Your task to perform on an android device: Show the shopping cart on walmart.com. Image 0: 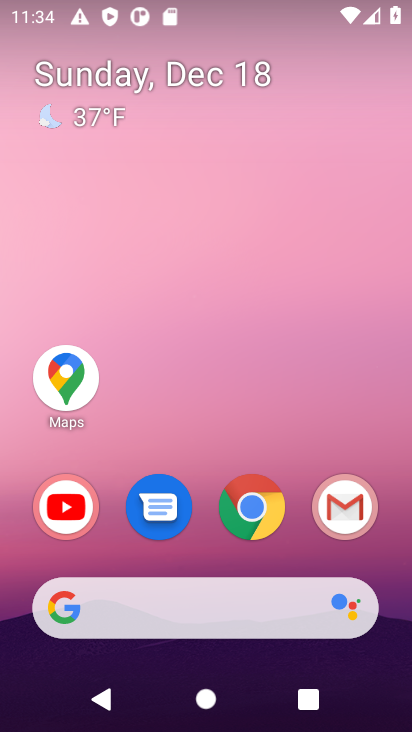
Step 0: click (251, 511)
Your task to perform on an android device: Show the shopping cart on walmart.com. Image 1: 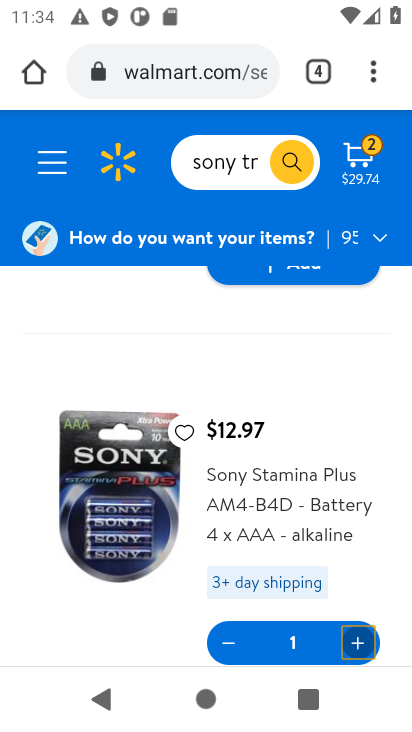
Step 1: click (358, 154)
Your task to perform on an android device: Show the shopping cart on walmart.com. Image 2: 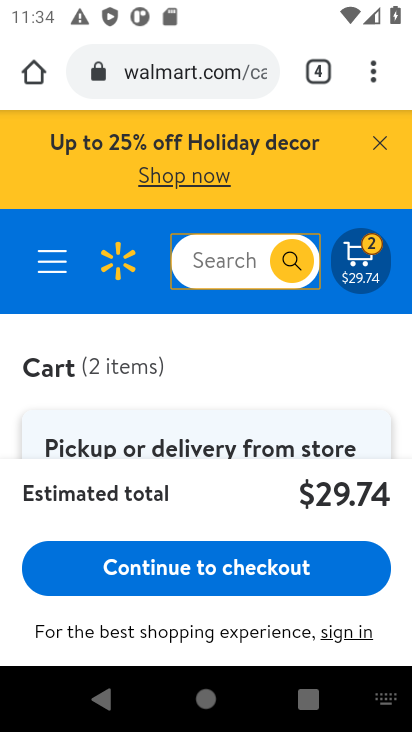
Step 2: task complete